Your task to perform on an android device: add a contact in the contacts app Image 0: 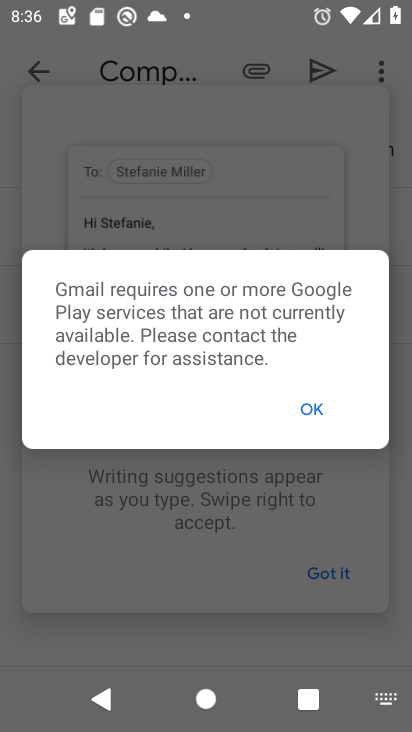
Step 0: press home button
Your task to perform on an android device: add a contact in the contacts app Image 1: 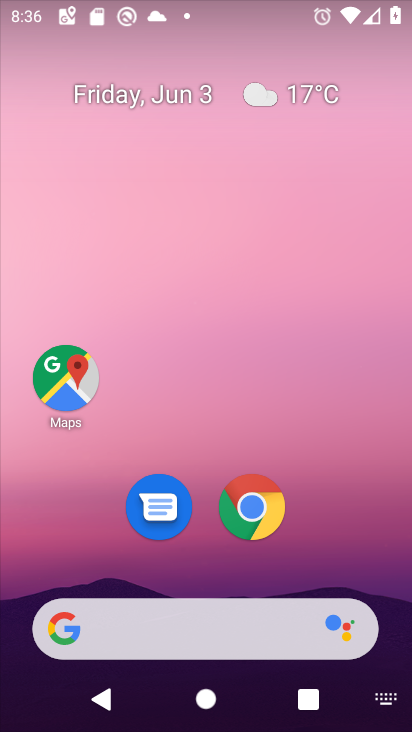
Step 1: drag from (360, 538) to (135, 1)
Your task to perform on an android device: add a contact in the contacts app Image 2: 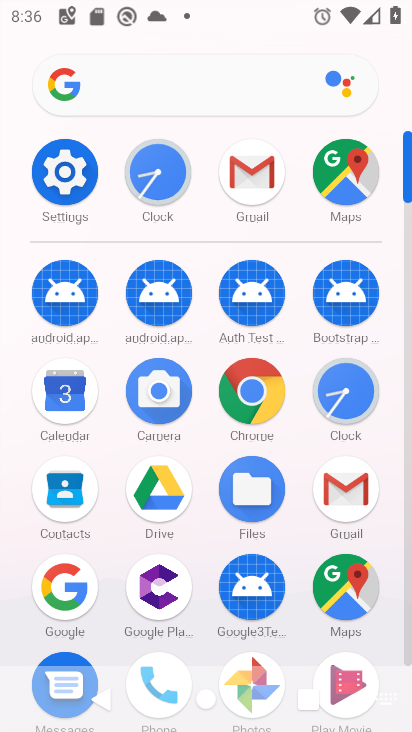
Step 2: click (75, 483)
Your task to perform on an android device: add a contact in the contacts app Image 3: 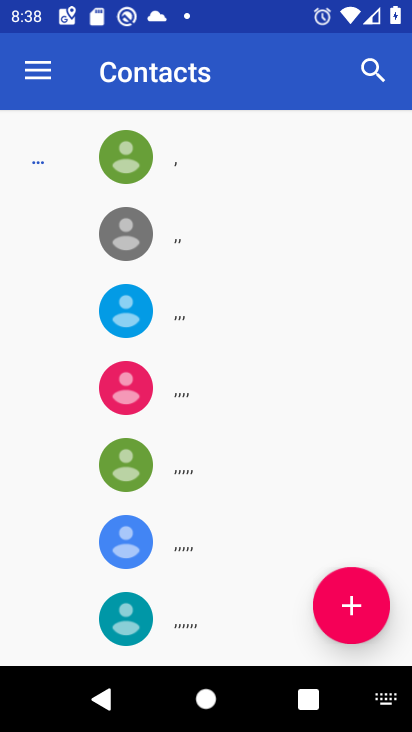
Step 3: click (358, 630)
Your task to perform on an android device: add a contact in the contacts app Image 4: 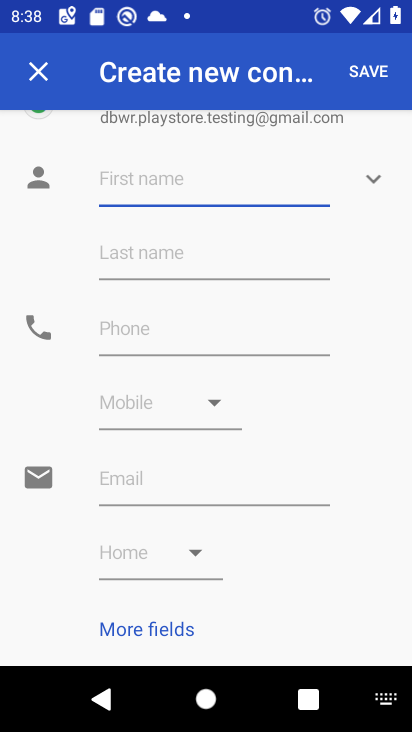
Step 4: type "yd"
Your task to perform on an android device: add a contact in the contacts app Image 5: 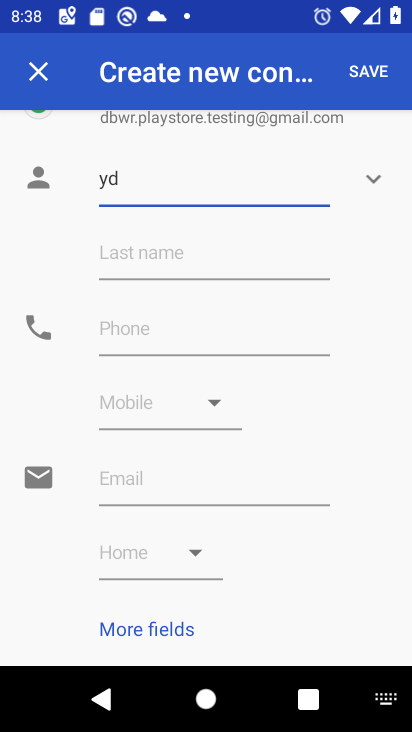
Step 5: click (276, 262)
Your task to perform on an android device: add a contact in the contacts app Image 6: 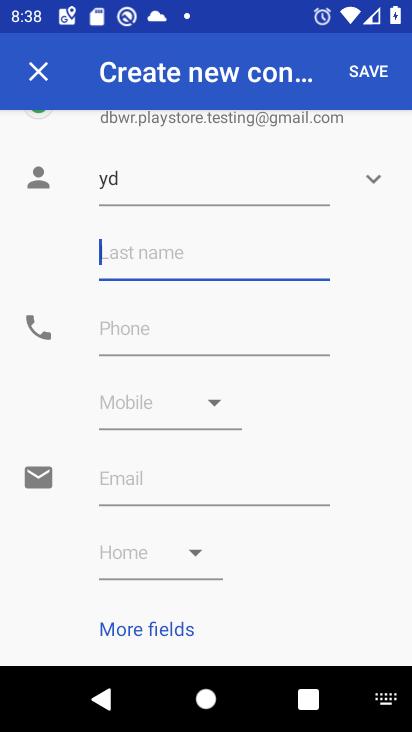
Step 6: type "dfgh"
Your task to perform on an android device: add a contact in the contacts app Image 7: 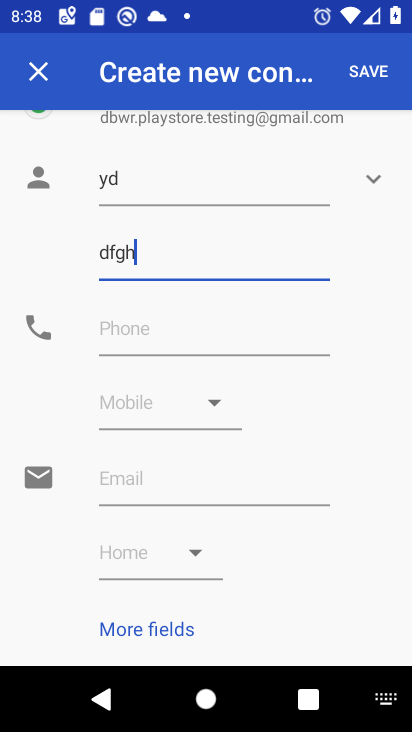
Step 7: click (300, 330)
Your task to perform on an android device: add a contact in the contacts app Image 8: 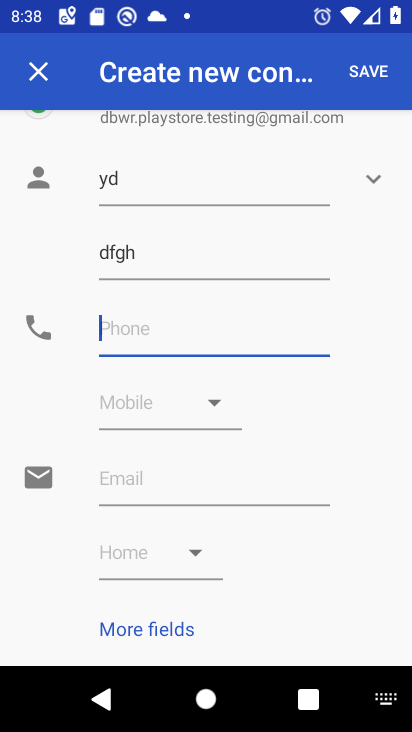
Step 8: type "74657456"
Your task to perform on an android device: add a contact in the contacts app Image 9: 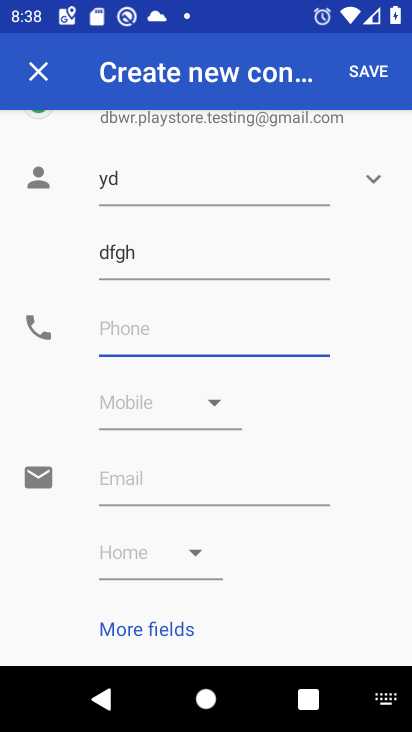
Step 9: click (376, 69)
Your task to perform on an android device: add a contact in the contacts app Image 10: 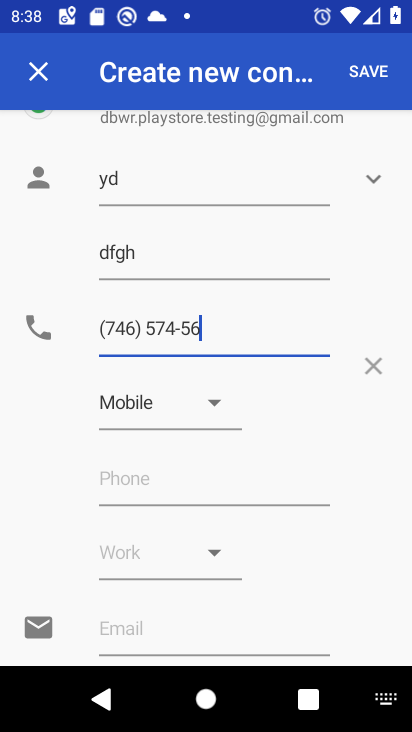
Step 10: type ""
Your task to perform on an android device: add a contact in the contacts app Image 11: 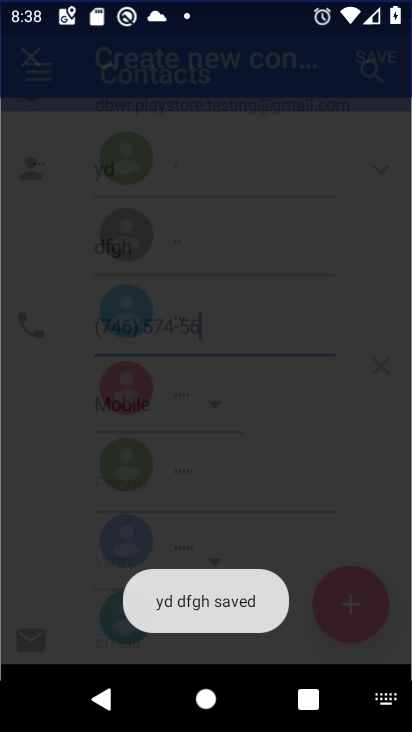
Step 11: task complete